Your task to perform on an android device: Turn off the flashlight Image 0: 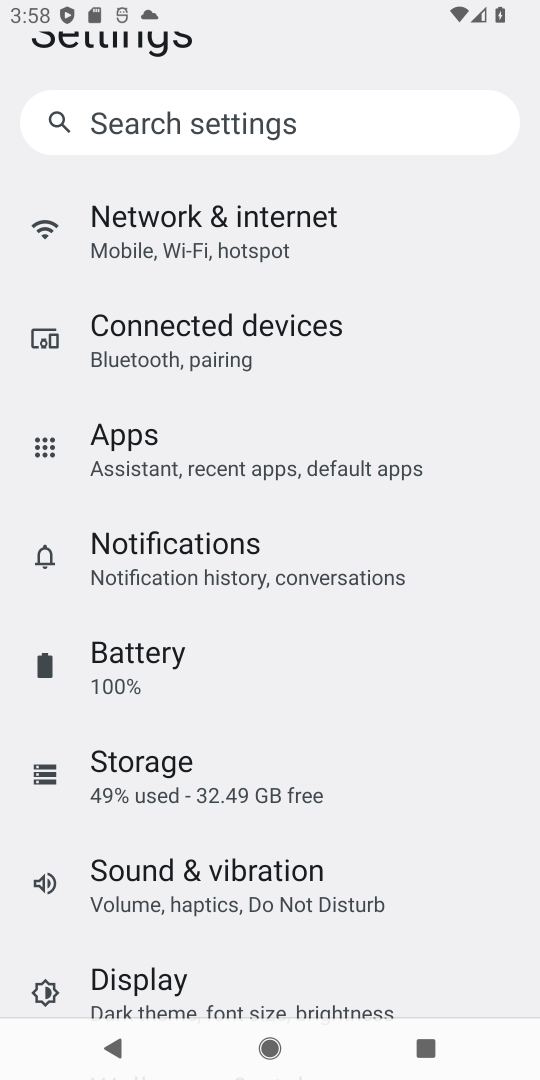
Step 0: press home button
Your task to perform on an android device: Turn off the flashlight Image 1: 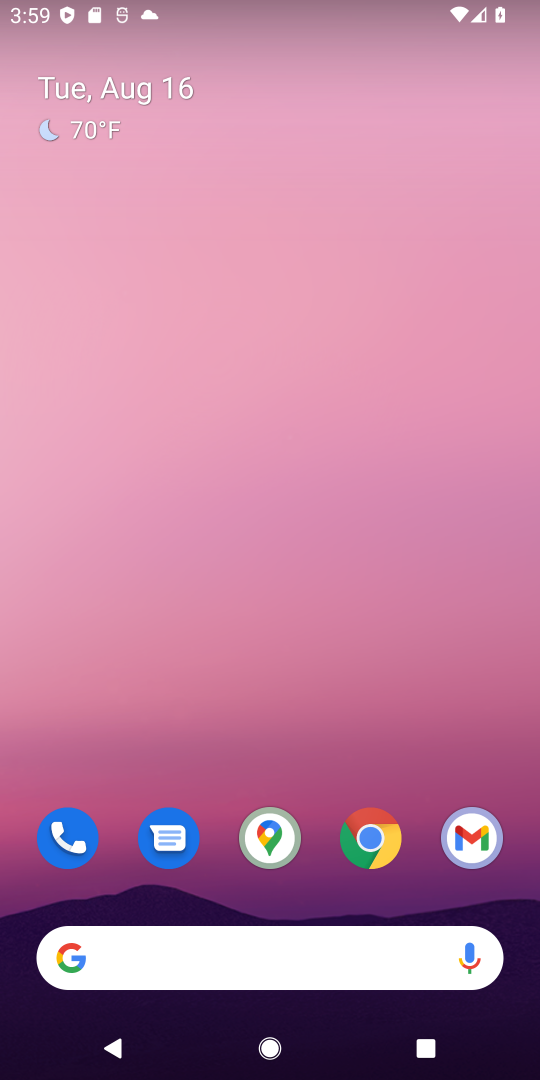
Step 1: task complete